Your task to perform on an android device: Go to sound settings Image 0: 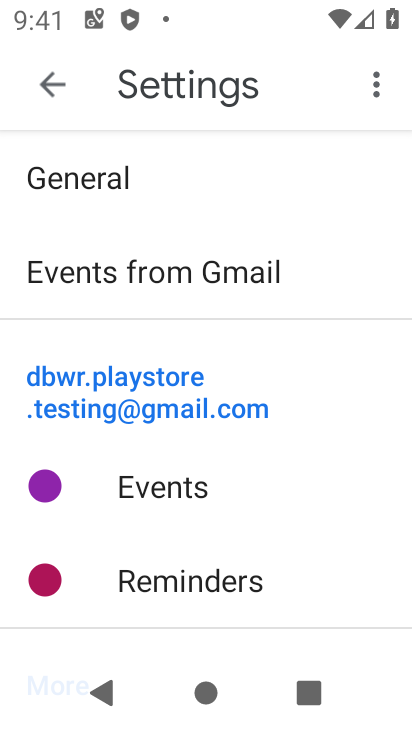
Step 0: press home button
Your task to perform on an android device: Go to sound settings Image 1: 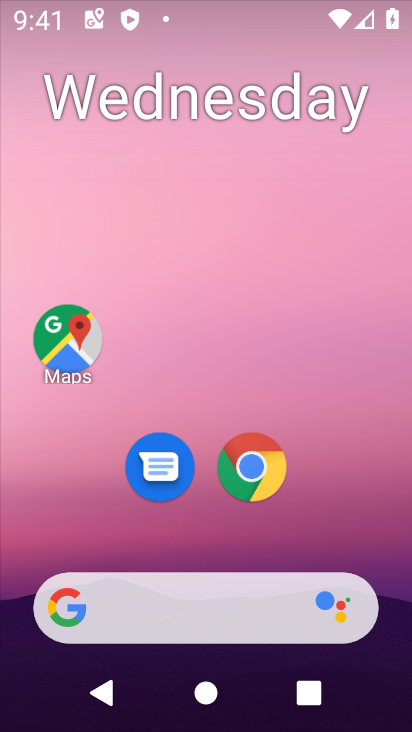
Step 1: drag from (322, 549) to (253, 62)
Your task to perform on an android device: Go to sound settings Image 2: 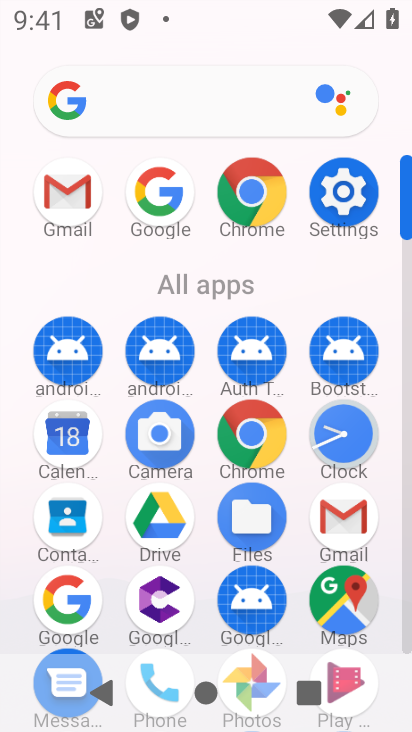
Step 2: click (332, 196)
Your task to perform on an android device: Go to sound settings Image 3: 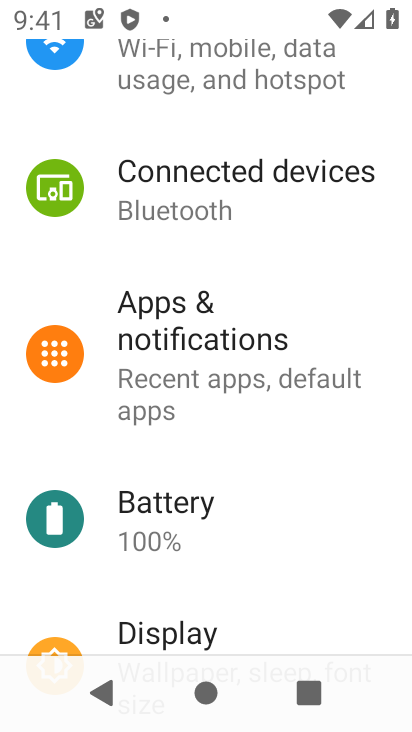
Step 3: drag from (264, 597) to (263, 186)
Your task to perform on an android device: Go to sound settings Image 4: 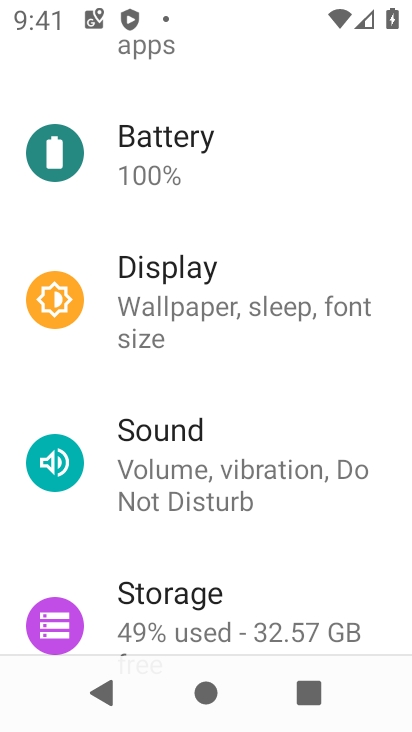
Step 4: click (229, 424)
Your task to perform on an android device: Go to sound settings Image 5: 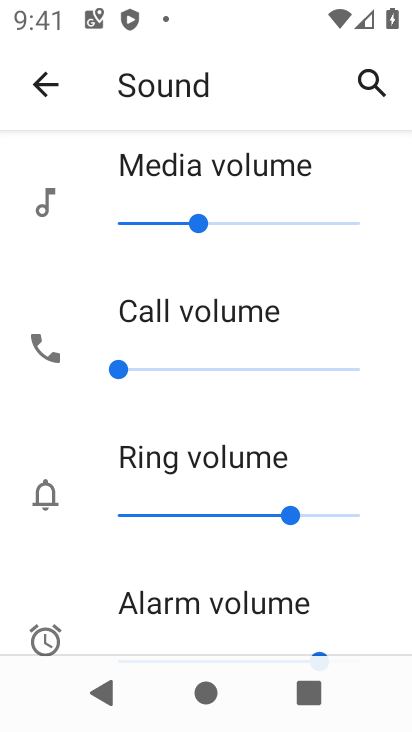
Step 5: task complete